Your task to perform on an android device: turn on notifications settings in the gmail app Image 0: 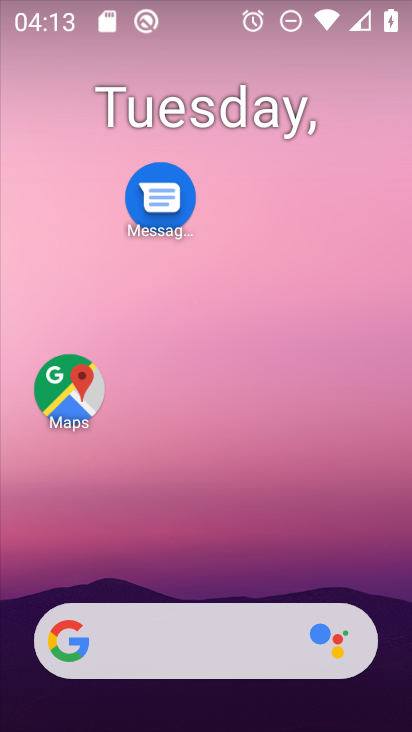
Step 0: drag from (187, 582) to (189, 248)
Your task to perform on an android device: turn on notifications settings in the gmail app Image 1: 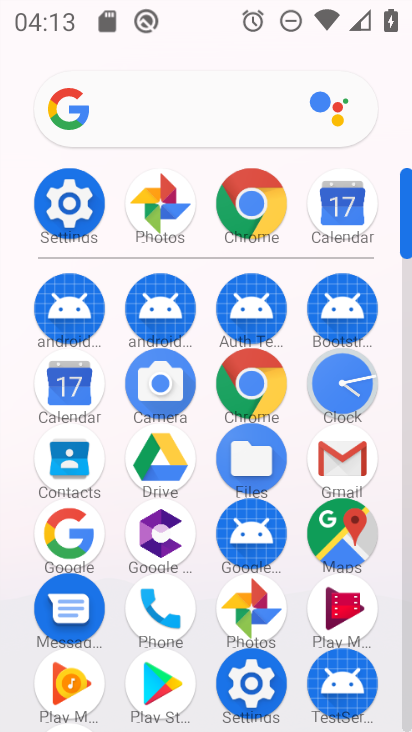
Step 1: click (322, 446)
Your task to perform on an android device: turn on notifications settings in the gmail app Image 2: 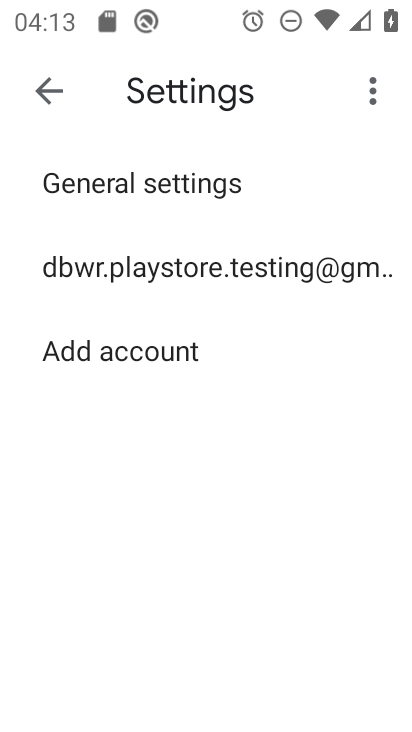
Step 2: click (112, 279)
Your task to perform on an android device: turn on notifications settings in the gmail app Image 3: 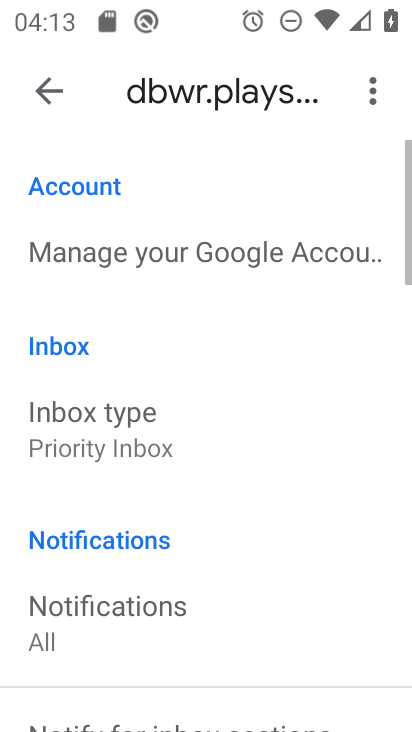
Step 3: drag from (207, 620) to (213, 431)
Your task to perform on an android device: turn on notifications settings in the gmail app Image 4: 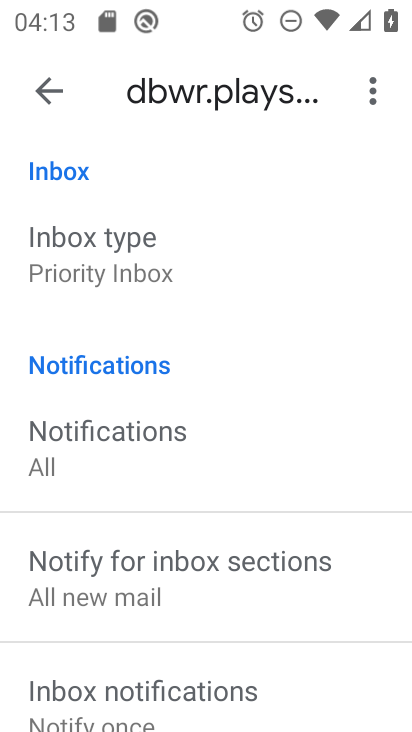
Step 4: drag from (162, 634) to (201, 450)
Your task to perform on an android device: turn on notifications settings in the gmail app Image 5: 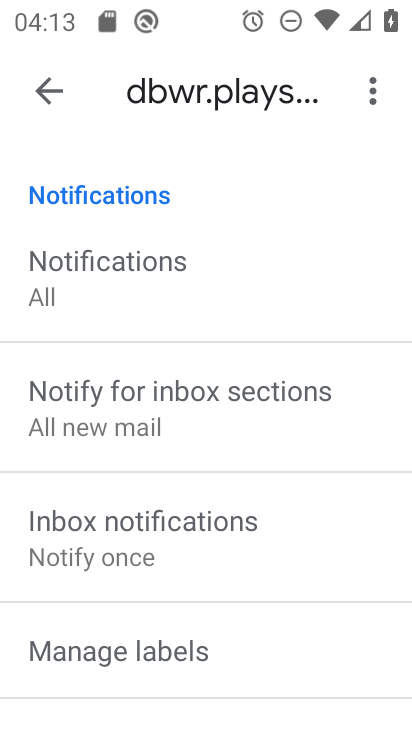
Step 5: drag from (166, 624) to (189, 515)
Your task to perform on an android device: turn on notifications settings in the gmail app Image 6: 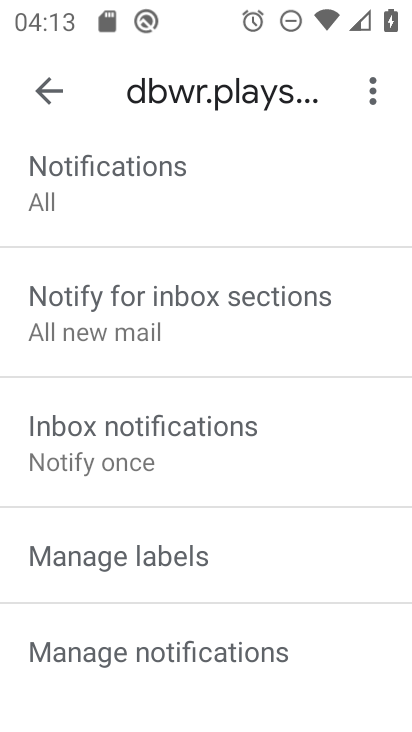
Step 6: click (192, 631)
Your task to perform on an android device: turn on notifications settings in the gmail app Image 7: 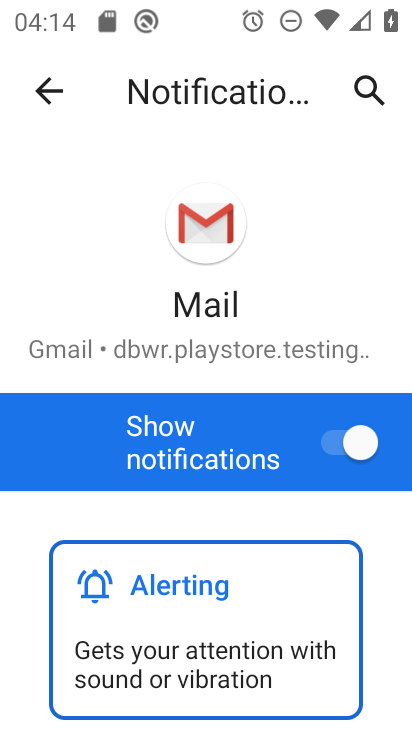
Step 7: task complete